Your task to perform on an android device: turn off javascript in the chrome app Image 0: 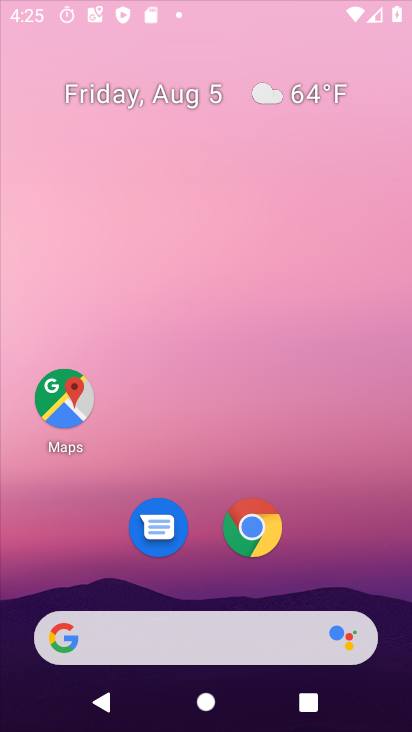
Step 0: press home button
Your task to perform on an android device: turn off javascript in the chrome app Image 1: 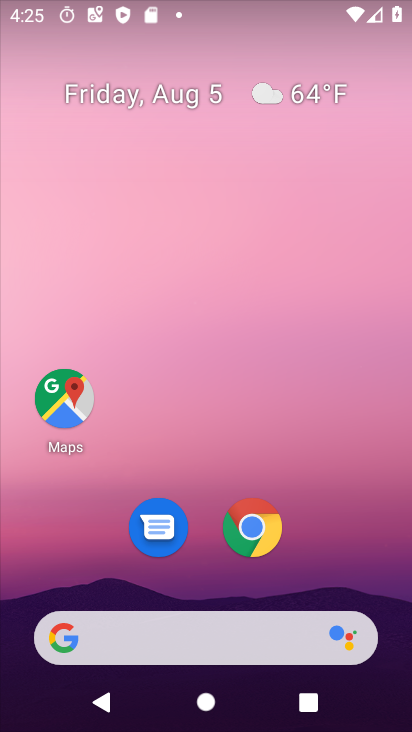
Step 1: click (250, 524)
Your task to perform on an android device: turn off javascript in the chrome app Image 2: 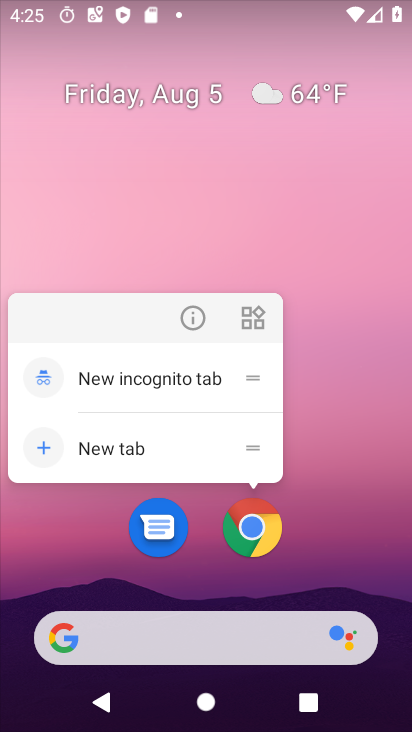
Step 2: click (306, 514)
Your task to perform on an android device: turn off javascript in the chrome app Image 3: 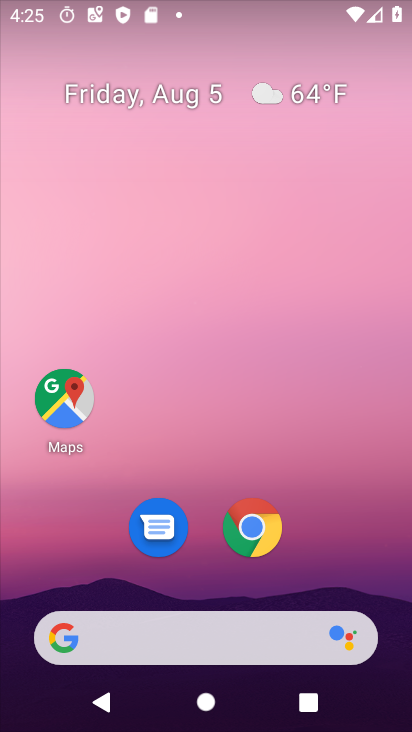
Step 3: click (257, 523)
Your task to perform on an android device: turn off javascript in the chrome app Image 4: 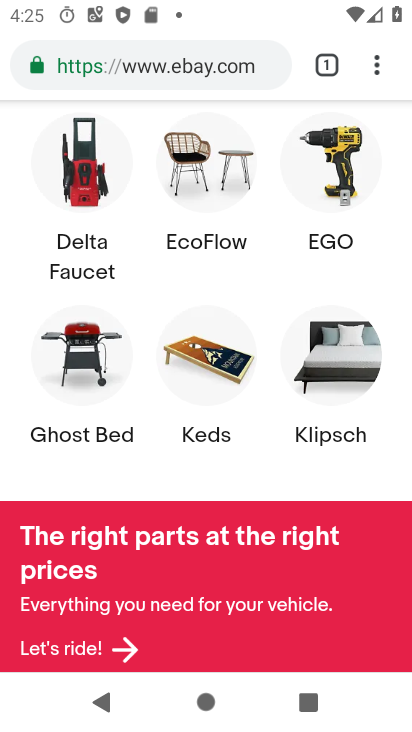
Step 4: click (373, 59)
Your task to perform on an android device: turn off javascript in the chrome app Image 5: 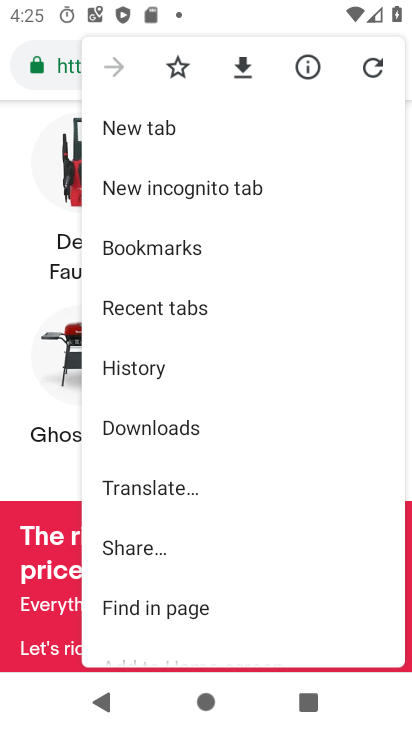
Step 5: drag from (242, 567) to (227, 58)
Your task to perform on an android device: turn off javascript in the chrome app Image 6: 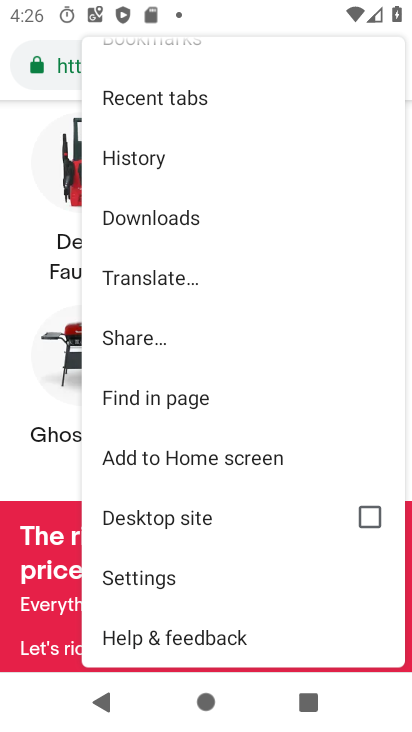
Step 6: click (183, 579)
Your task to perform on an android device: turn off javascript in the chrome app Image 7: 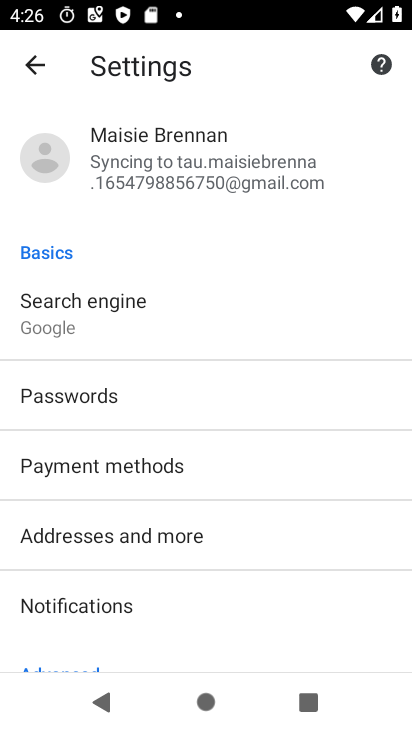
Step 7: drag from (214, 592) to (209, 54)
Your task to perform on an android device: turn off javascript in the chrome app Image 8: 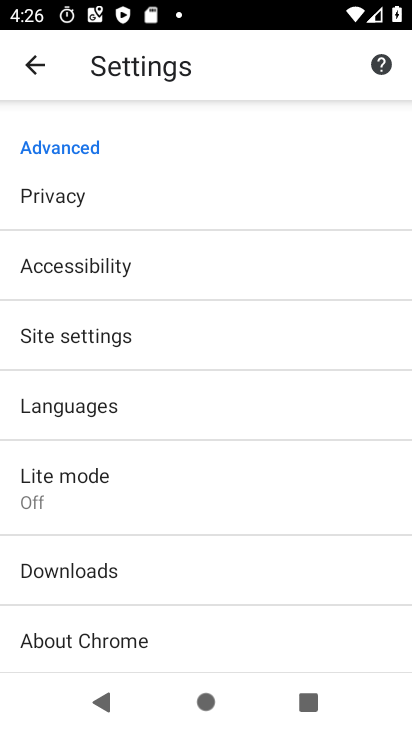
Step 8: click (153, 341)
Your task to perform on an android device: turn off javascript in the chrome app Image 9: 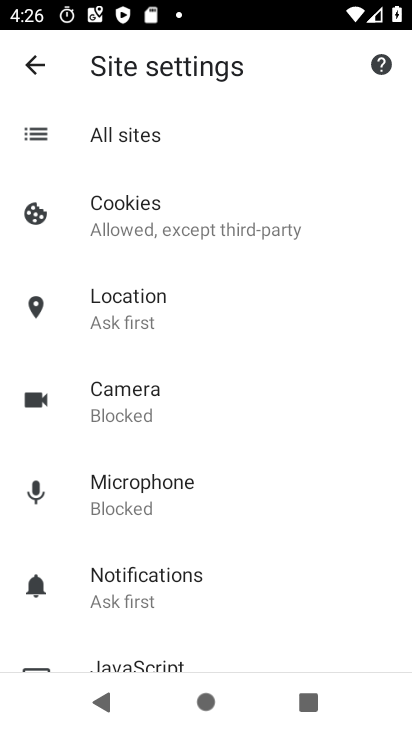
Step 9: drag from (124, 614) to (165, 228)
Your task to perform on an android device: turn off javascript in the chrome app Image 10: 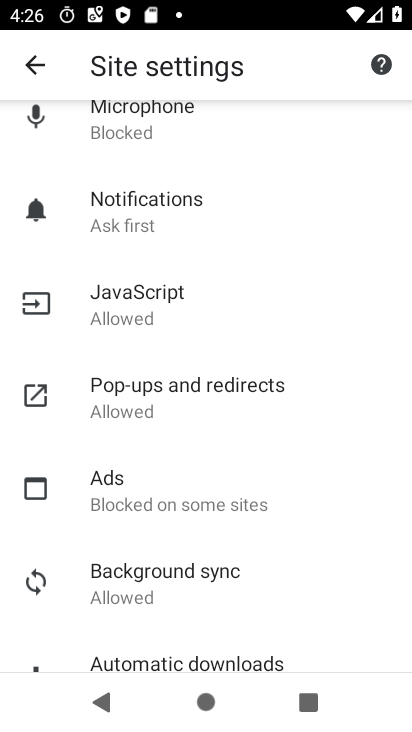
Step 10: click (75, 301)
Your task to perform on an android device: turn off javascript in the chrome app Image 11: 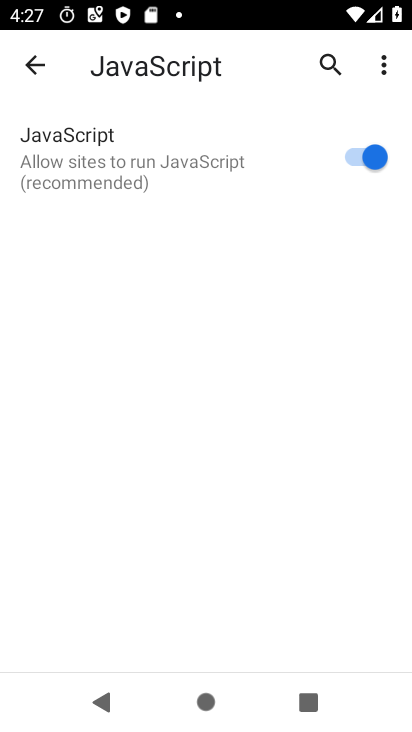
Step 11: click (352, 148)
Your task to perform on an android device: turn off javascript in the chrome app Image 12: 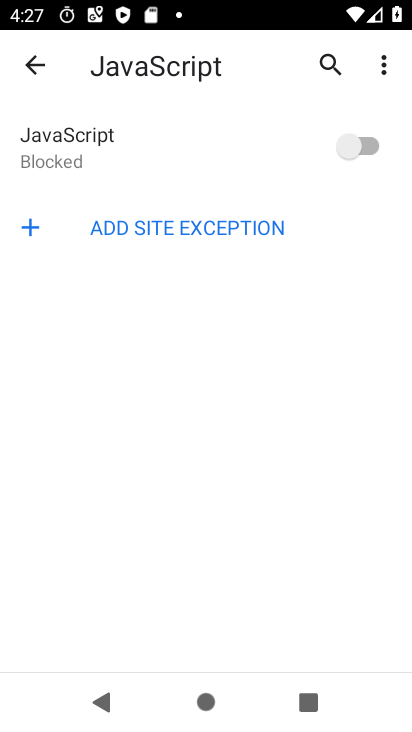
Step 12: task complete